Your task to perform on an android device: turn off sleep mode Image 0: 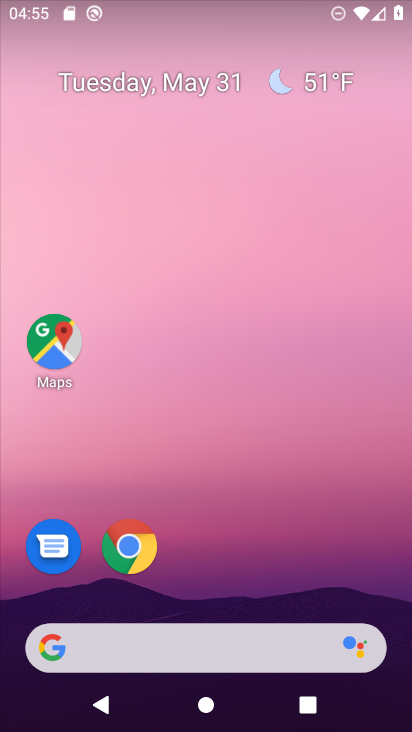
Step 0: drag from (192, 584) to (194, 167)
Your task to perform on an android device: turn off sleep mode Image 1: 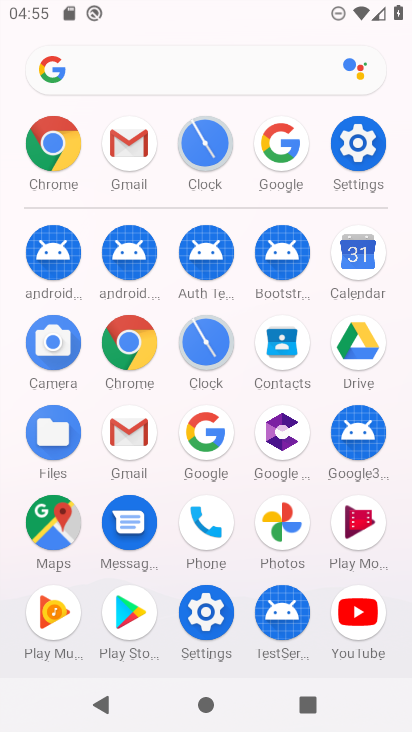
Step 1: click (356, 157)
Your task to perform on an android device: turn off sleep mode Image 2: 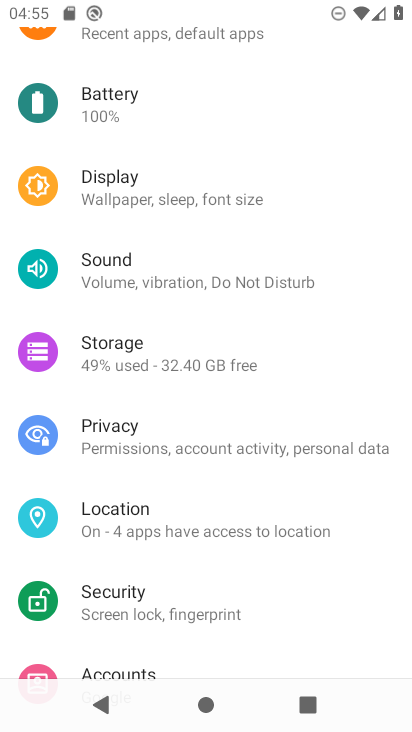
Step 2: task complete